Your task to perform on an android device: When is my next meeting? Image 0: 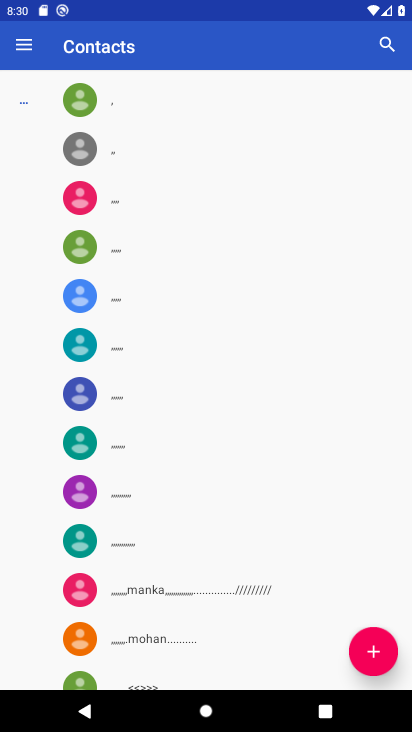
Step 0: press home button
Your task to perform on an android device: When is my next meeting? Image 1: 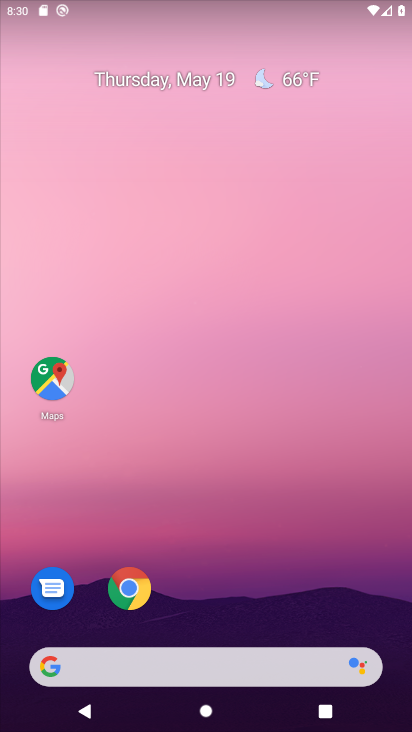
Step 1: drag from (363, 613) to (357, 208)
Your task to perform on an android device: When is my next meeting? Image 2: 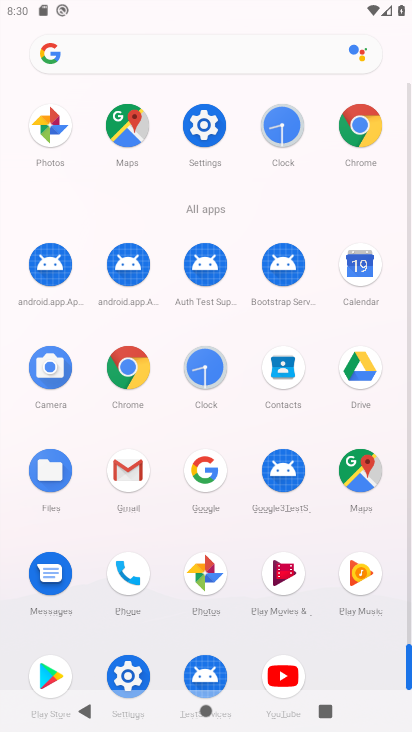
Step 2: drag from (311, 641) to (313, 409)
Your task to perform on an android device: When is my next meeting? Image 3: 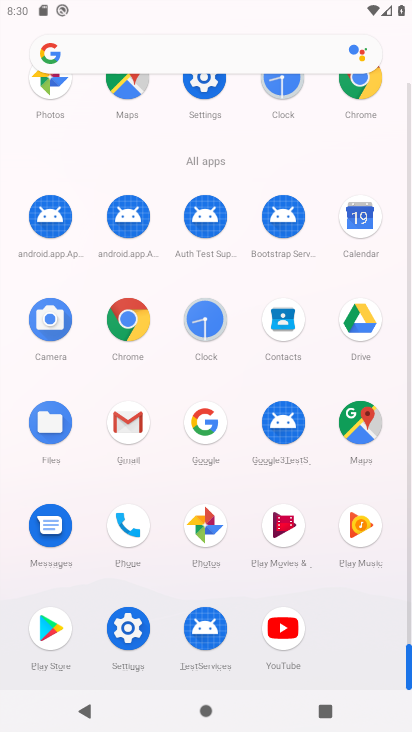
Step 3: drag from (320, 305) to (316, 433)
Your task to perform on an android device: When is my next meeting? Image 4: 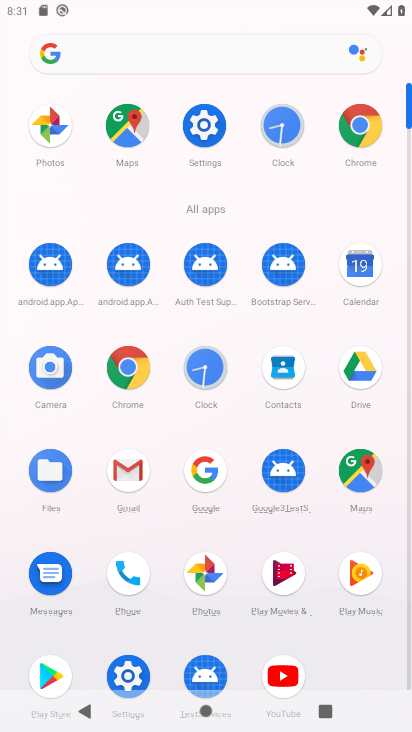
Step 4: drag from (318, 231) to (320, 273)
Your task to perform on an android device: When is my next meeting? Image 5: 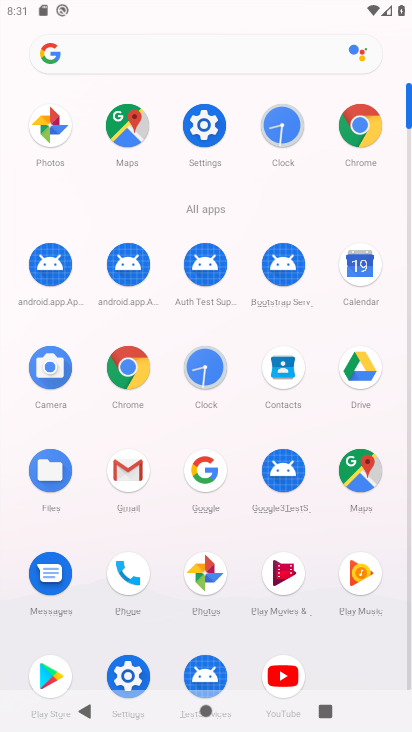
Step 5: drag from (327, 647) to (321, 443)
Your task to perform on an android device: When is my next meeting? Image 6: 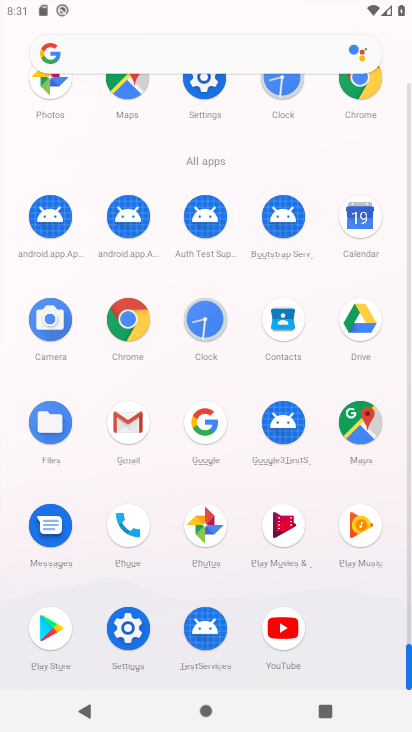
Step 6: click (344, 246)
Your task to perform on an android device: When is my next meeting? Image 7: 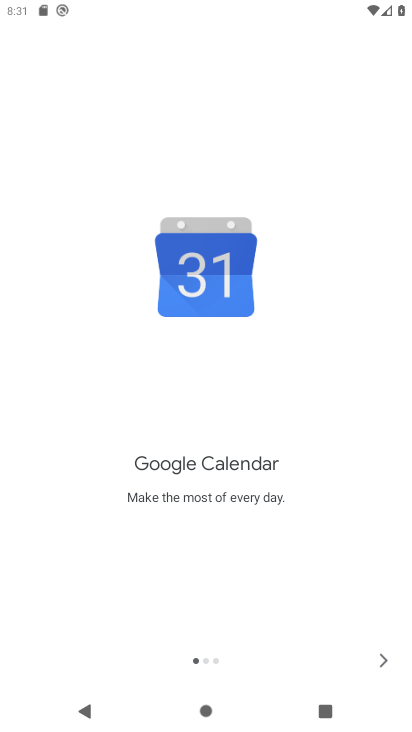
Step 7: click (371, 669)
Your task to perform on an android device: When is my next meeting? Image 8: 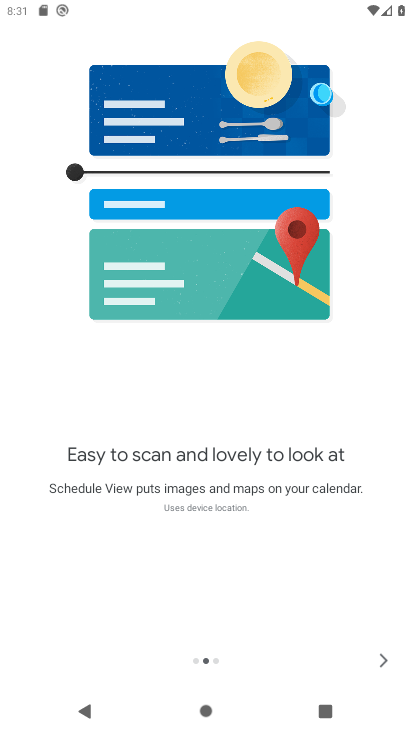
Step 8: click (371, 669)
Your task to perform on an android device: When is my next meeting? Image 9: 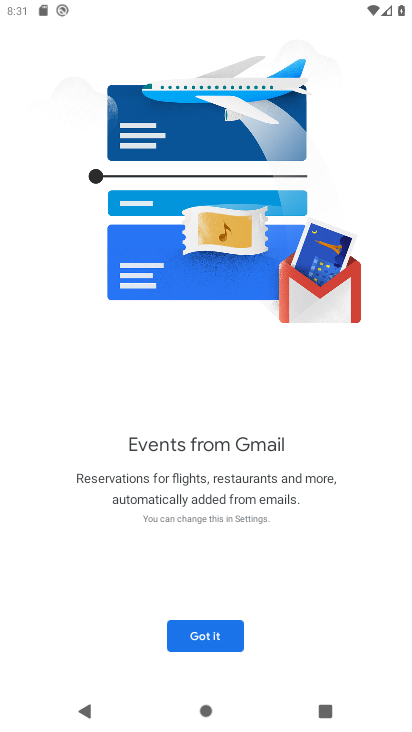
Step 9: click (226, 630)
Your task to perform on an android device: When is my next meeting? Image 10: 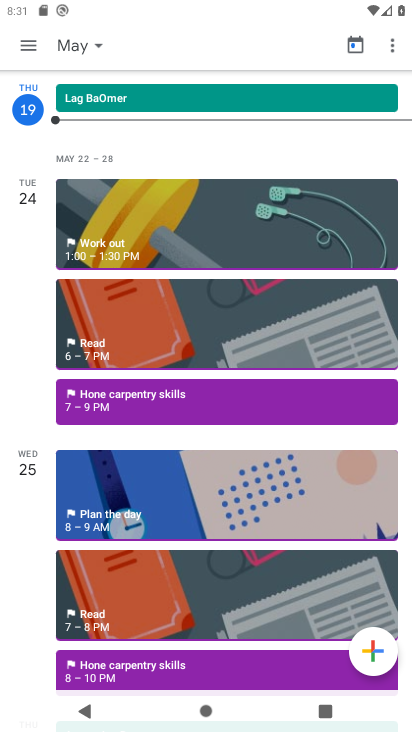
Step 10: click (264, 226)
Your task to perform on an android device: When is my next meeting? Image 11: 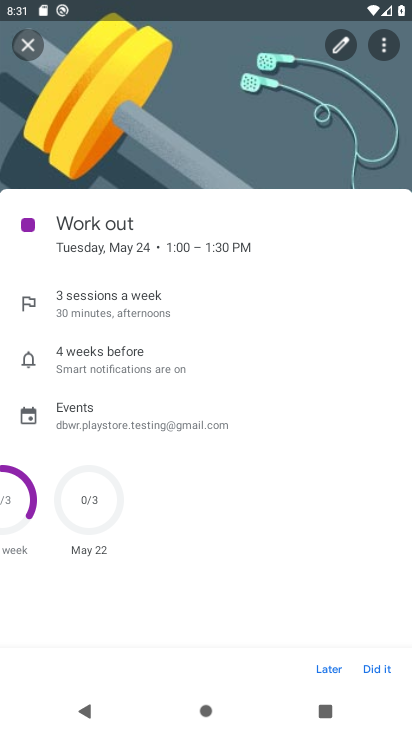
Step 11: task complete